Your task to perform on an android device: Go to location settings Image 0: 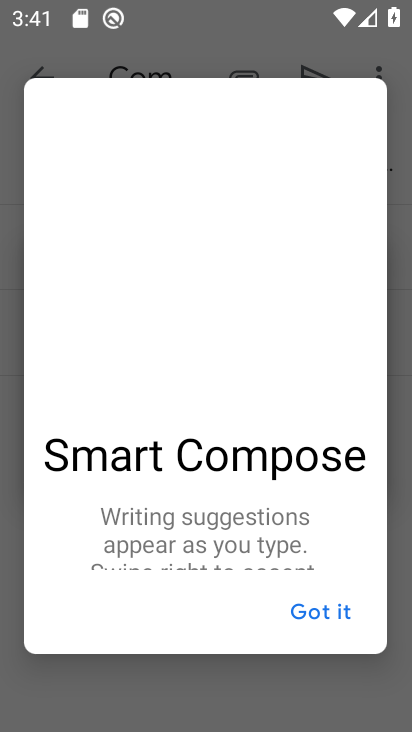
Step 0: press back button
Your task to perform on an android device: Go to location settings Image 1: 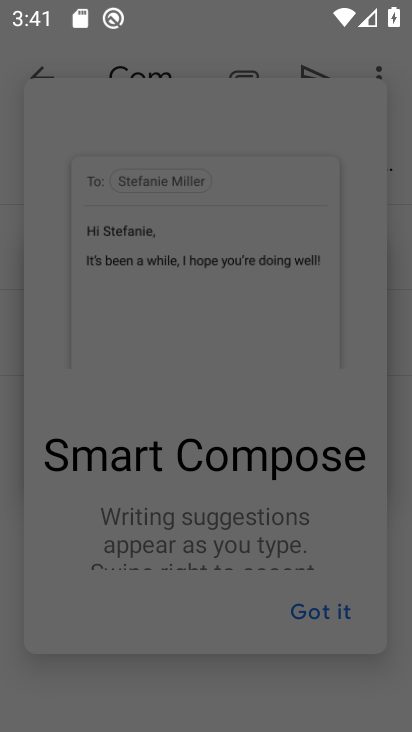
Step 1: press home button
Your task to perform on an android device: Go to location settings Image 2: 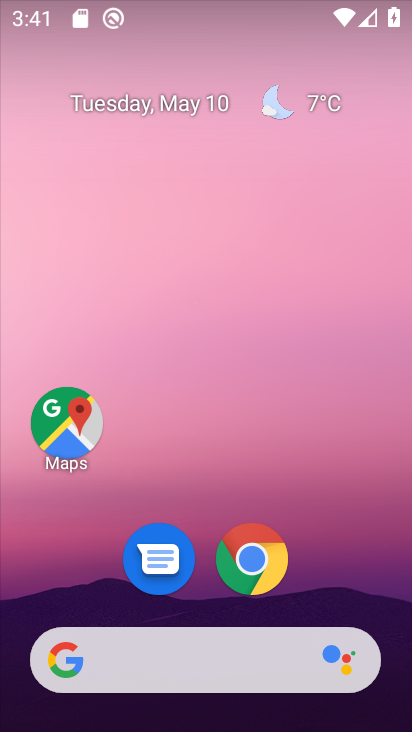
Step 2: drag from (71, 620) to (219, 143)
Your task to perform on an android device: Go to location settings Image 3: 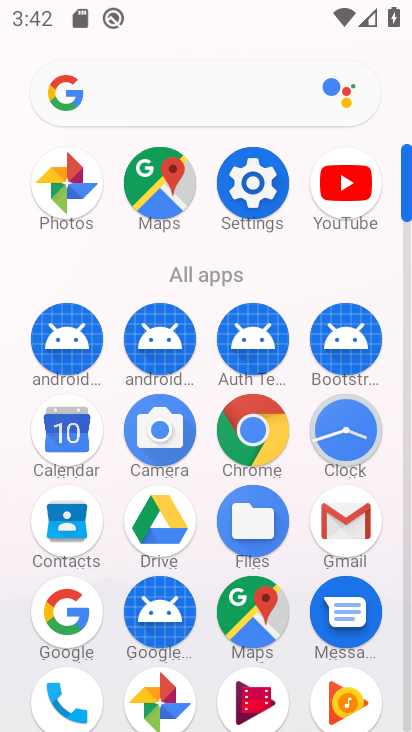
Step 3: click (263, 195)
Your task to perform on an android device: Go to location settings Image 4: 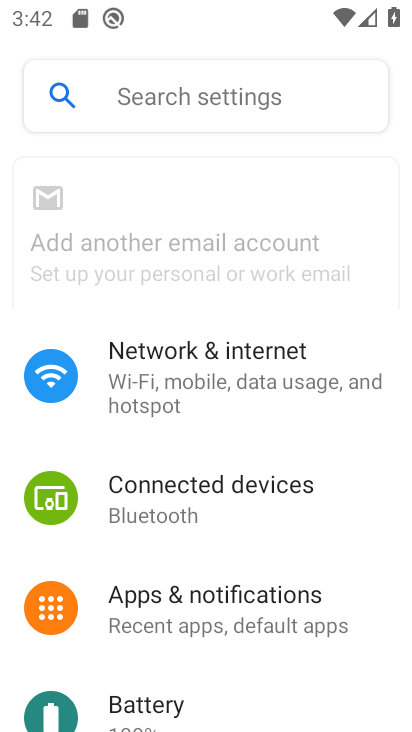
Step 4: drag from (156, 642) to (288, 218)
Your task to perform on an android device: Go to location settings Image 5: 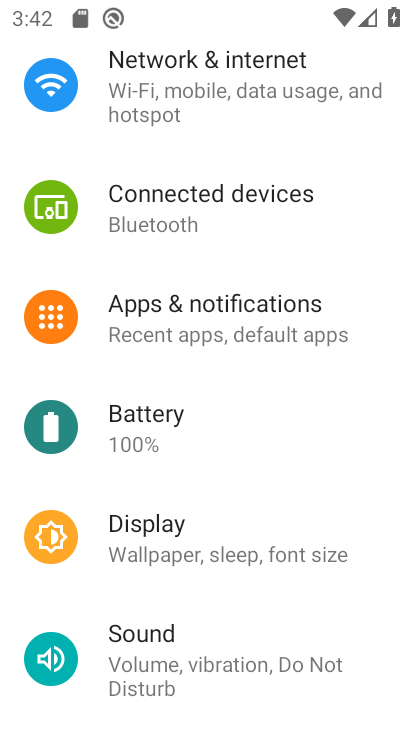
Step 5: drag from (199, 552) to (284, 211)
Your task to perform on an android device: Go to location settings Image 6: 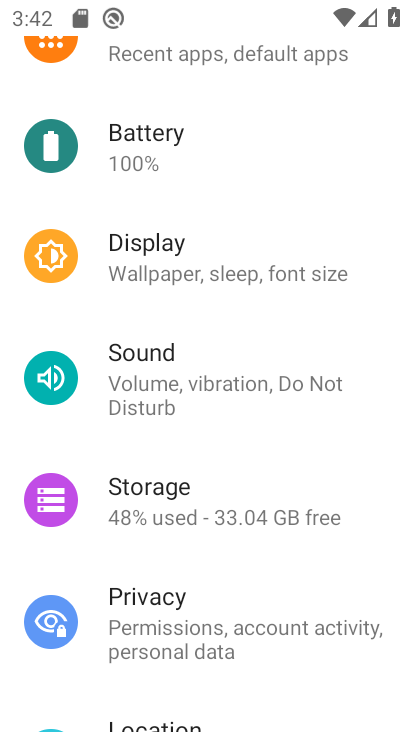
Step 6: drag from (228, 584) to (302, 176)
Your task to perform on an android device: Go to location settings Image 7: 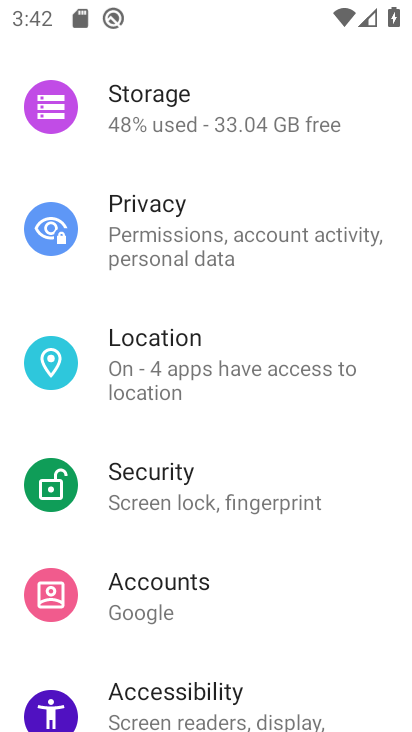
Step 7: click (223, 368)
Your task to perform on an android device: Go to location settings Image 8: 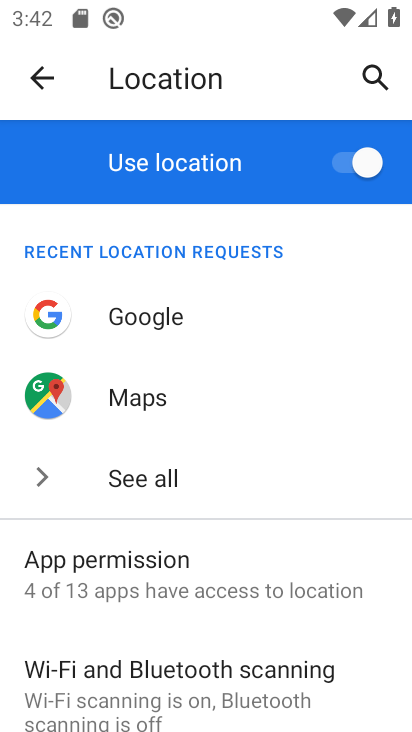
Step 8: task complete